Your task to perform on an android device: toggle pop-ups in chrome Image 0: 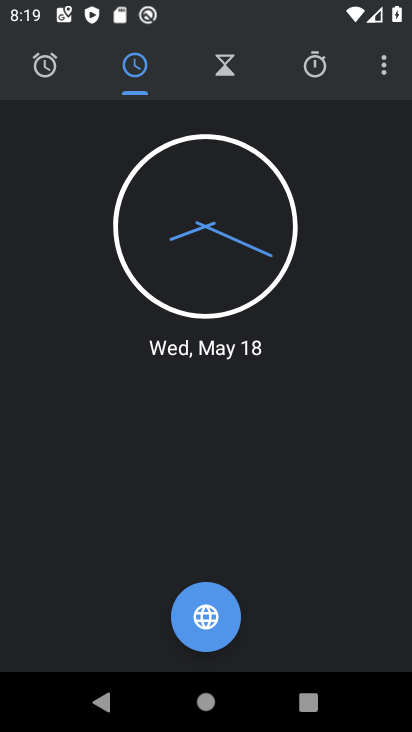
Step 0: press home button
Your task to perform on an android device: toggle pop-ups in chrome Image 1: 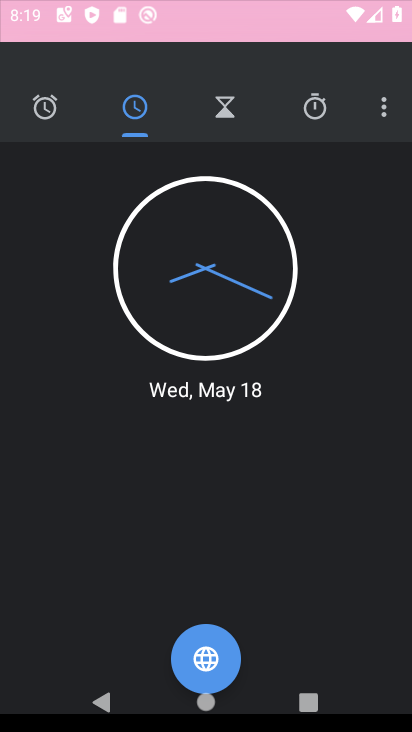
Step 1: press home button
Your task to perform on an android device: toggle pop-ups in chrome Image 2: 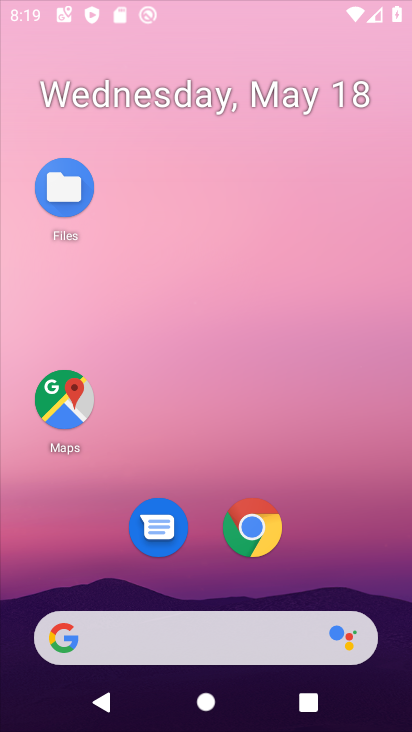
Step 2: press home button
Your task to perform on an android device: toggle pop-ups in chrome Image 3: 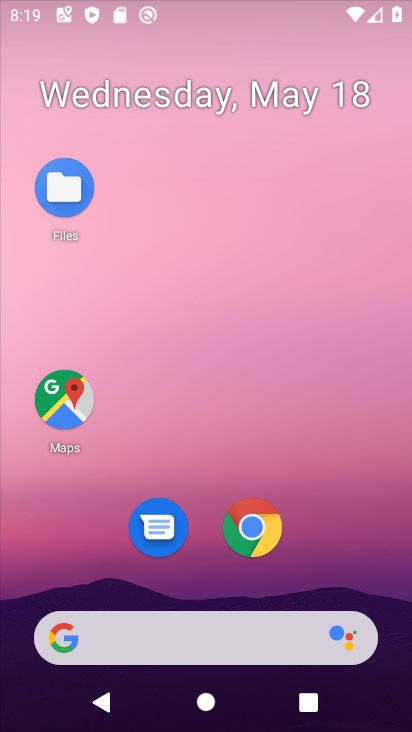
Step 3: press home button
Your task to perform on an android device: toggle pop-ups in chrome Image 4: 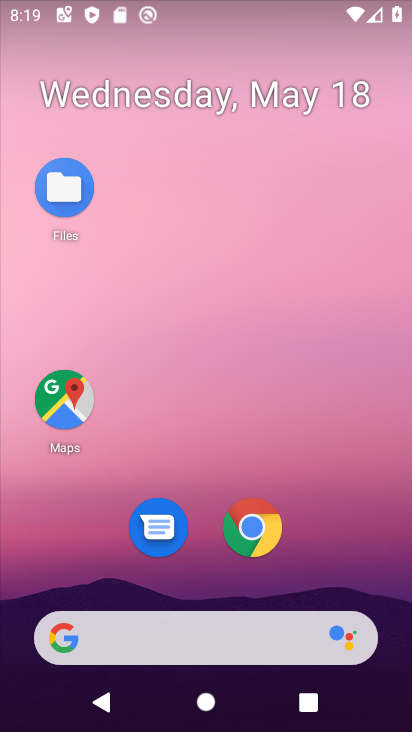
Step 4: drag from (361, 591) to (151, 124)
Your task to perform on an android device: toggle pop-ups in chrome Image 5: 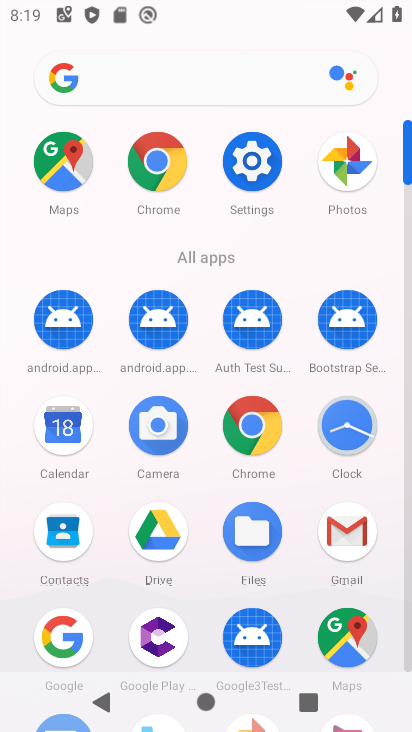
Step 5: click (152, 177)
Your task to perform on an android device: toggle pop-ups in chrome Image 6: 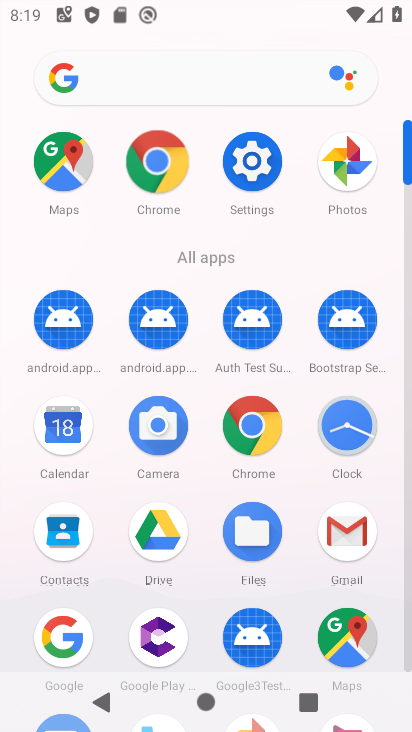
Step 6: click (155, 174)
Your task to perform on an android device: toggle pop-ups in chrome Image 7: 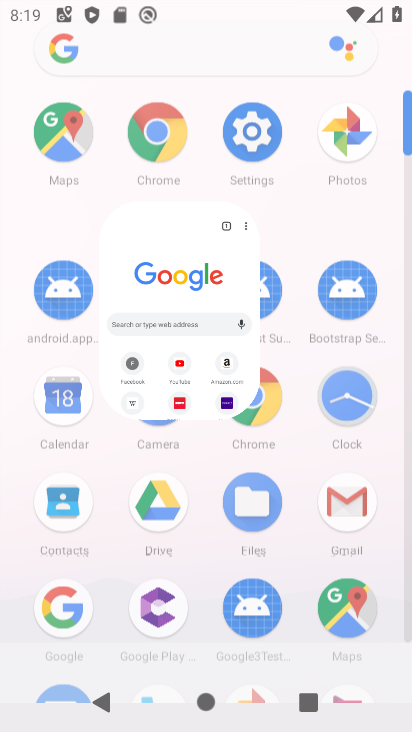
Step 7: click (155, 172)
Your task to perform on an android device: toggle pop-ups in chrome Image 8: 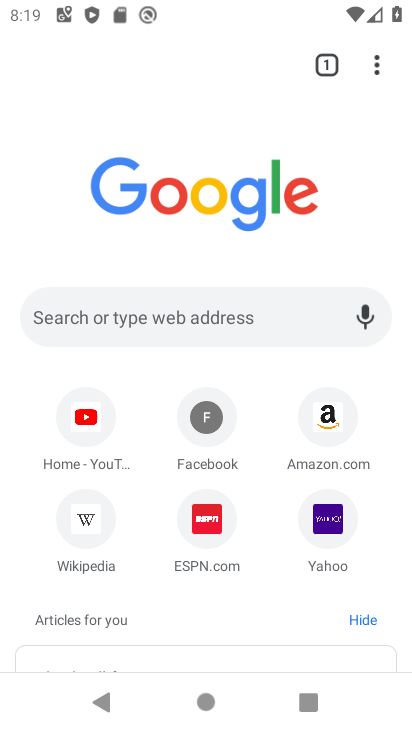
Step 8: click (369, 68)
Your task to perform on an android device: toggle pop-ups in chrome Image 9: 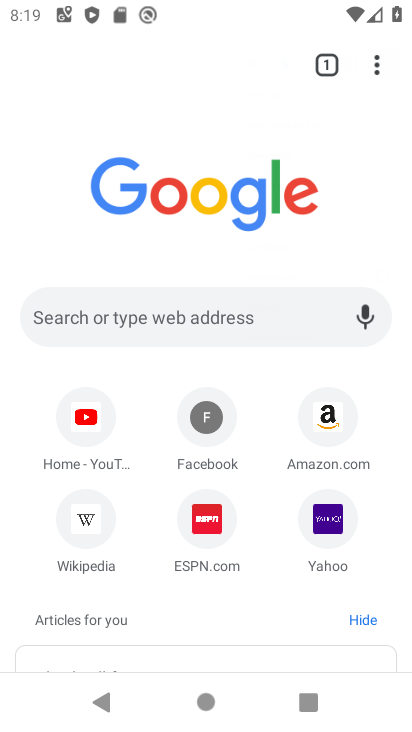
Step 9: drag from (375, 68) to (130, 546)
Your task to perform on an android device: toggle pop-ups in chrome Image 10: 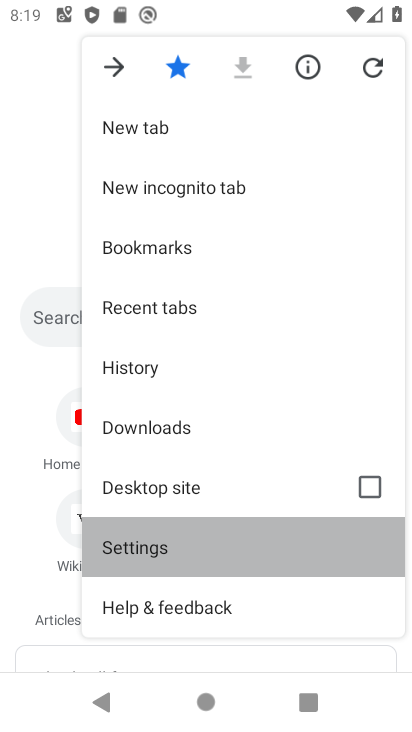
Step 10: click (143, 556)
Your task to perform on an android device: toggle pop-ups in chrome Image 11: 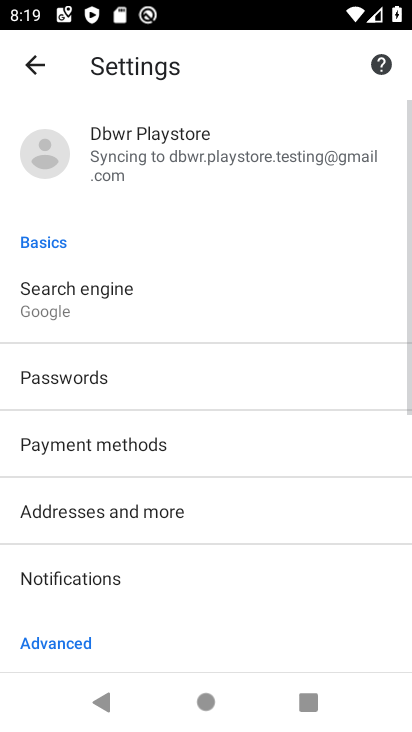
Step 11: drag from (121, 450) to (151, 111)
Your task to perform on an android device: toggle pop-ups in chrome Image 12: 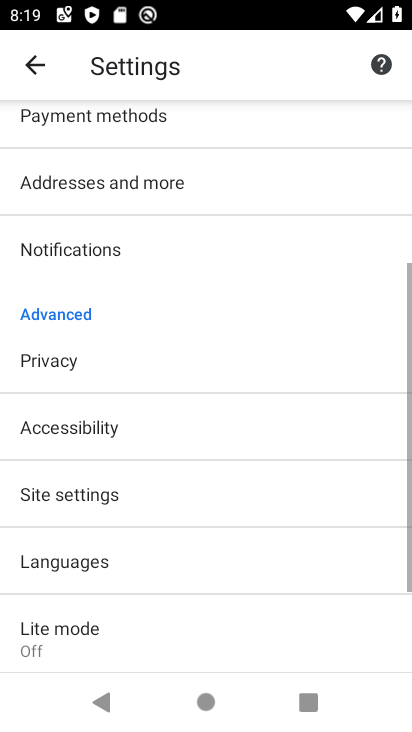
Step 12: drag from (145, 304) to (130, 16)
Your task to perform on an android device: toggle pop-ups in chrome Image 13: 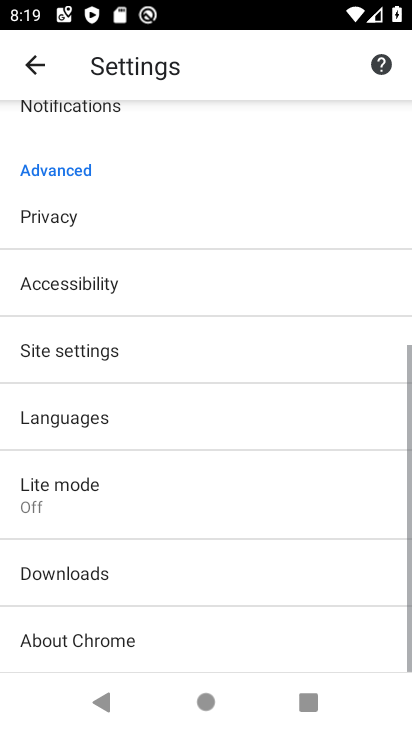
Step 13: drag from (178, 543) to (198, 179)
Your task to perform on an android device: toggle pop-ups in chrome Image 14: 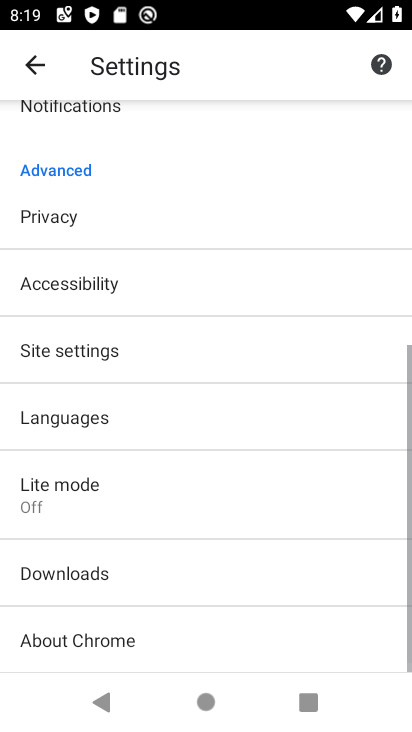
Step 14: drag from (164, 433) to (157, 16)
Your task to perform on an android device: toggle pop-ups in chrome Image 15: 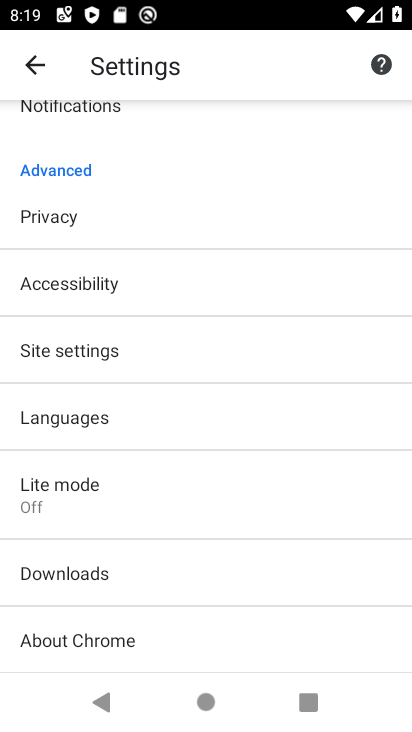
Step 15: click (46, 339)
Your task to perform on an android device: toggle pop-ups in chrome Image 16: 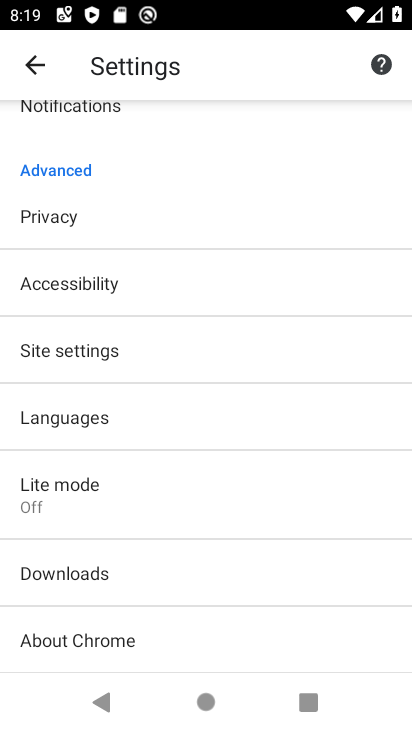
Step 16: click (50, 343)
Your task to perform on an android device: toggle pop-ups in chrome Image 17: 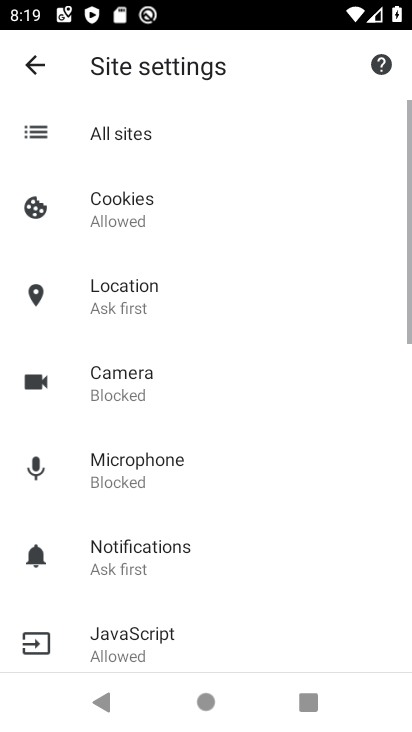
Step 17: click (50, 343)
Your task to perform on an android device: toggle pop-ups in chrome Image 18: 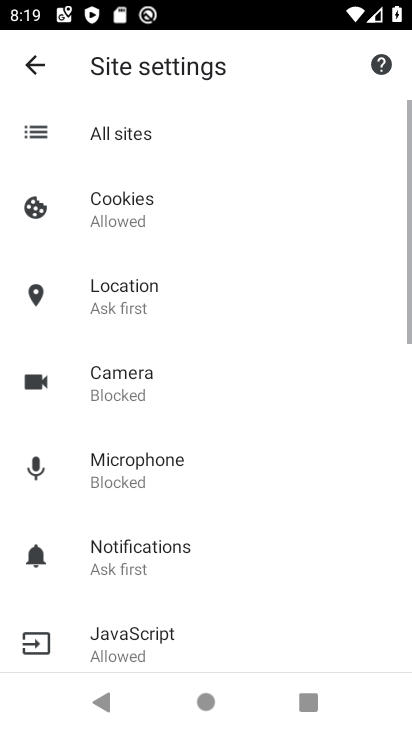
Step 18: click (50, 343)
Your task to perform on an android device: toggle pop-ups in chrome Image 19: 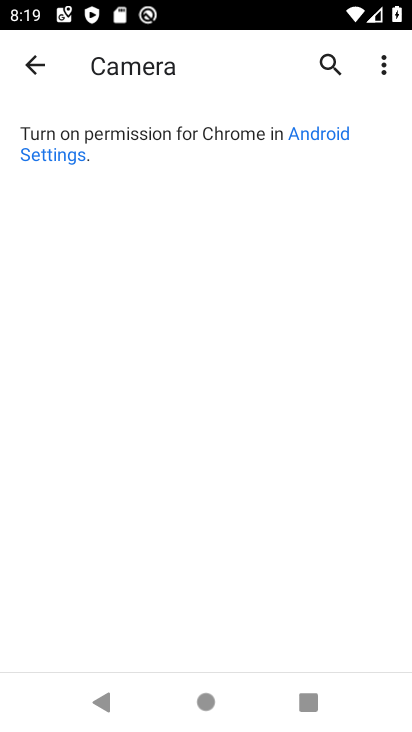
Step 19: click (27, 60)
Your task to perform on an android device: toggle pop-ups in chrome Image 20: 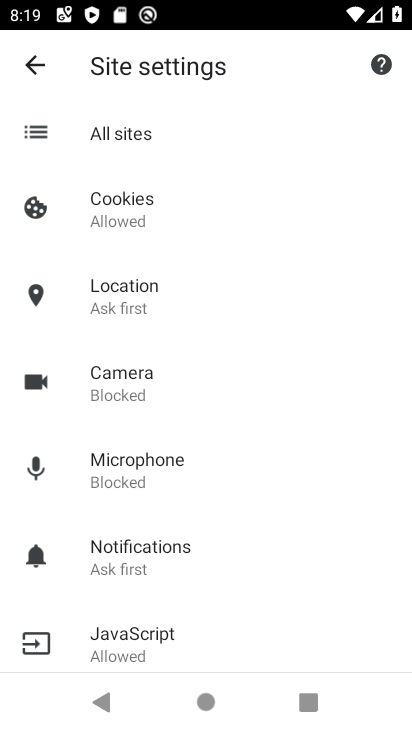
Step 20: drag from (120, 437) to (139, 132)
Your task to perform on an android device: toggle pop-ups in chrome Image 21: 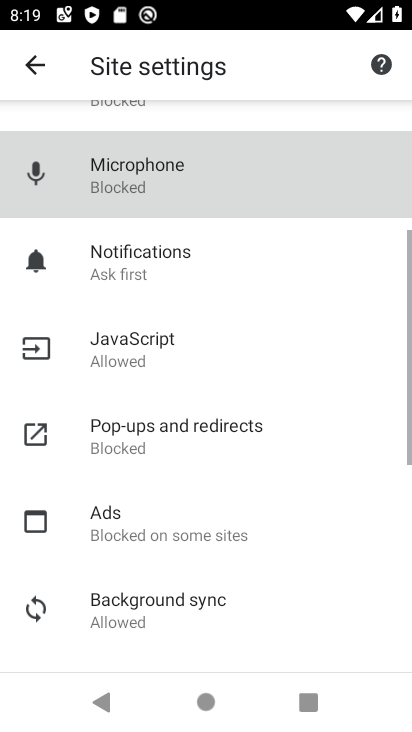
Step 21: drag from (194, 424) to (218, 85)
Your task to perform on an android device: toggle pop-ups in chrome Image 22: 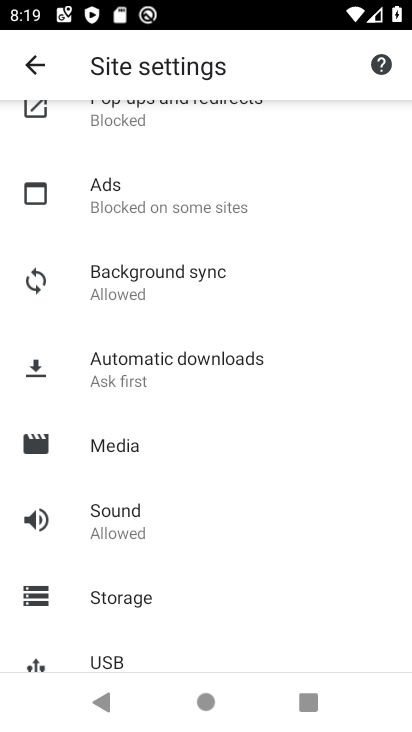
Step 22: drag from (136, 231) to (165, 637)
Your task to perform on an android device: toggle pop-ups in chrome Image 23: 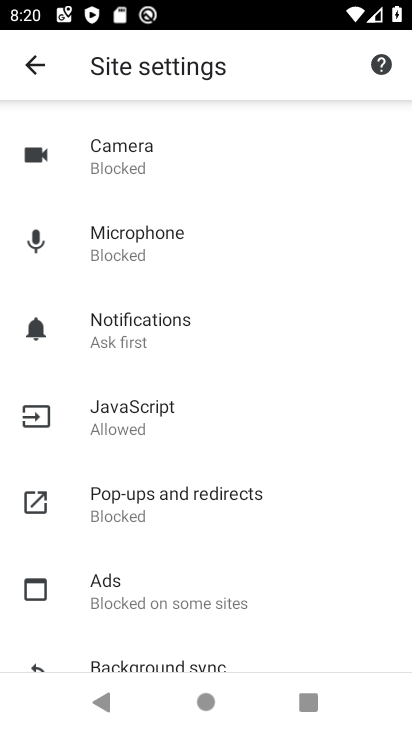
Step 23: click (129, 499)
Your task to perform on an android device: toggle pop-ups in chrome Image 24: 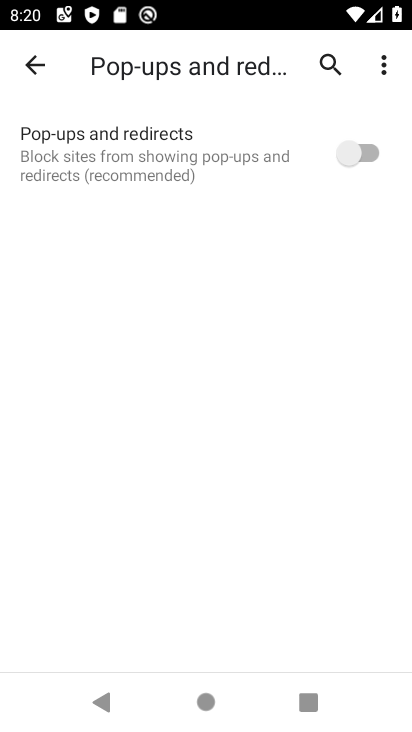
Step 24: click (341, 153)
Your task to perform on an android device: toggle pop-ups in chrome Image 25: 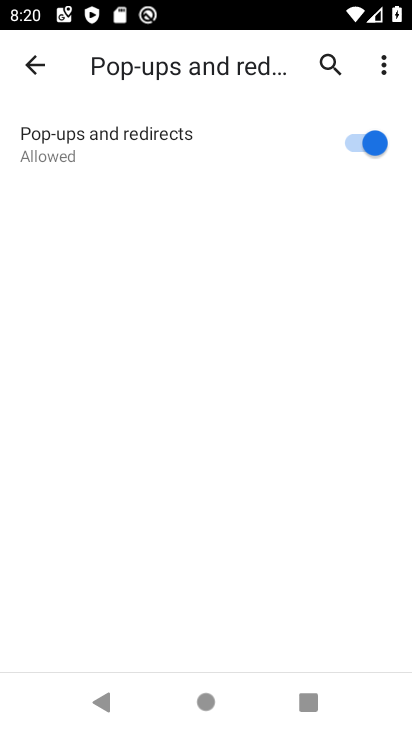
Step 25: task complete